Your task to perform on an android device: move a message to another label in the gmail app Image 0: 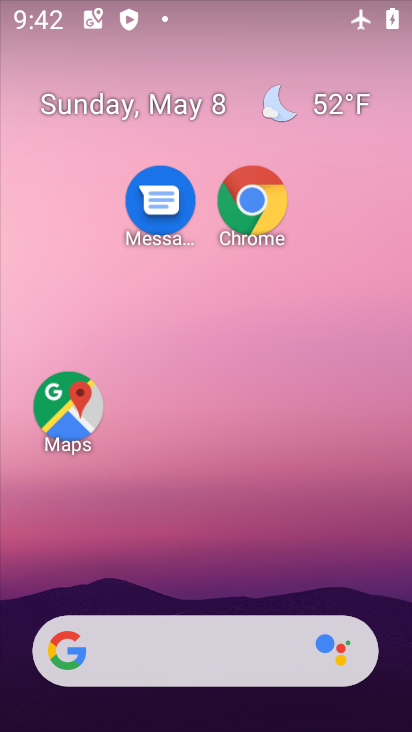
Step 0: drag from (216, 610) to (189, 16)
Your task to perform on an android device: move a message to another label in the gmail app Image 1: 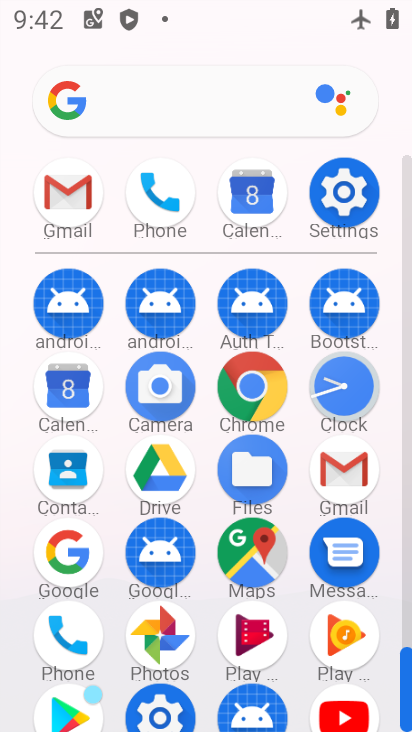
Step 1: click (340, 491)
Your task to perform on an android device: move a message to another label in the gmail app Image 2: 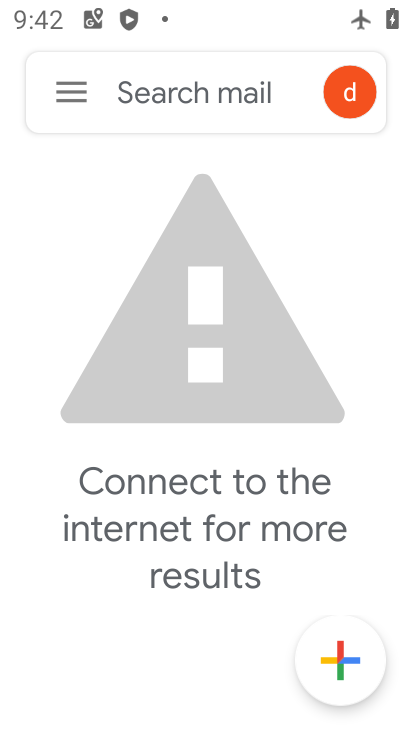
Step 2: task complete